Your task to perform on an android device: Empty the shopping cart on walmart.com. Search for "bose quietcomfort 35" on walmart.com, select the first entry, add it to the cart, then select checkout. Image 0: 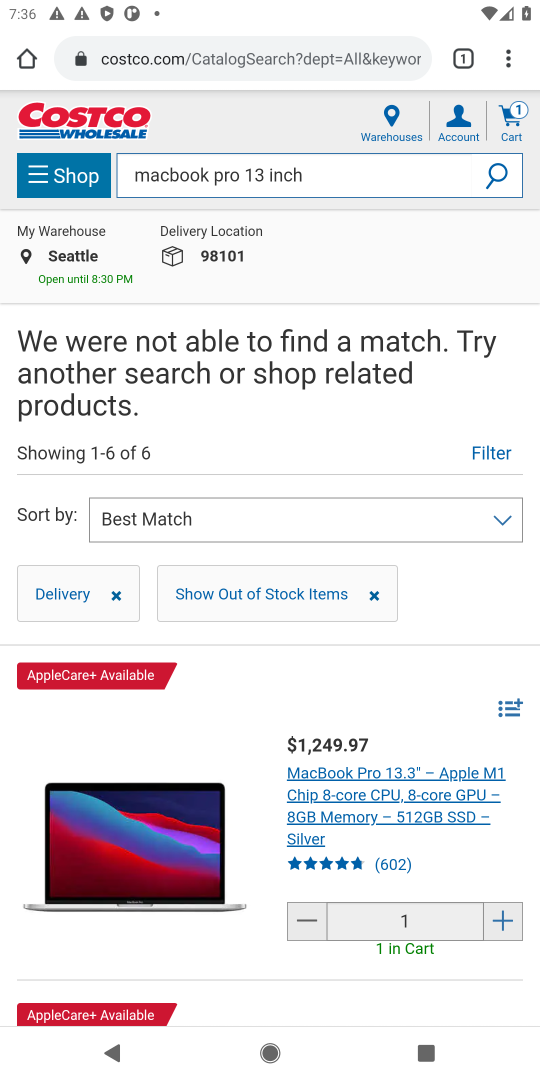
Step 0: press home button
Your task to perform on an android device: Empty the shopping cart on walmart.com. Search for "bose quietcomfort 35" on walmart.com, select the first entry, add it to the cart, then select checkout. Image 1: 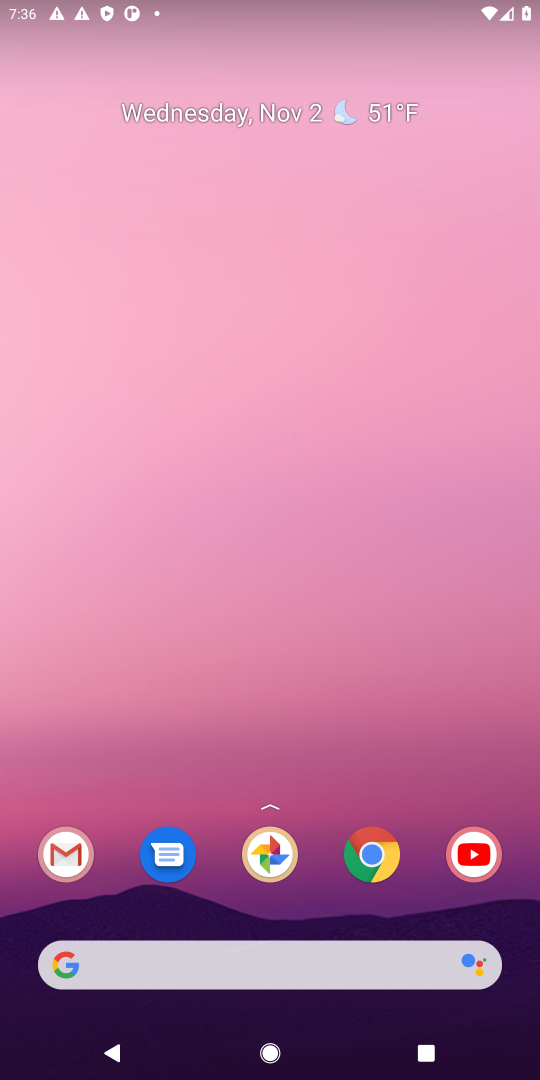
Step 1: click (373, 850)
Your task to perform on an android device: Empty the shopping cart on walmart.com. Search for "bose quietcomfort 35" on walmart.com, select the first entry, add it to the cart, then select checkout. Image 2: 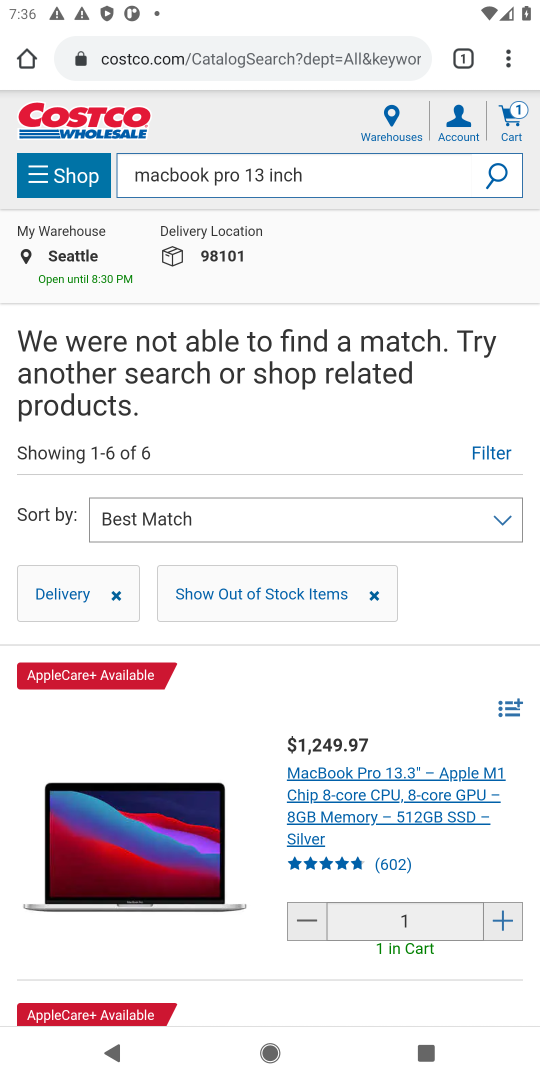
Step 2: click (464, 66)
Your task to perform on an android device: Empty the shopping cart on walmart.com. Search for "bose quietcomfort 35" on walmart.com, select the first entry, add it to the cart, then select checkout. Image 3: 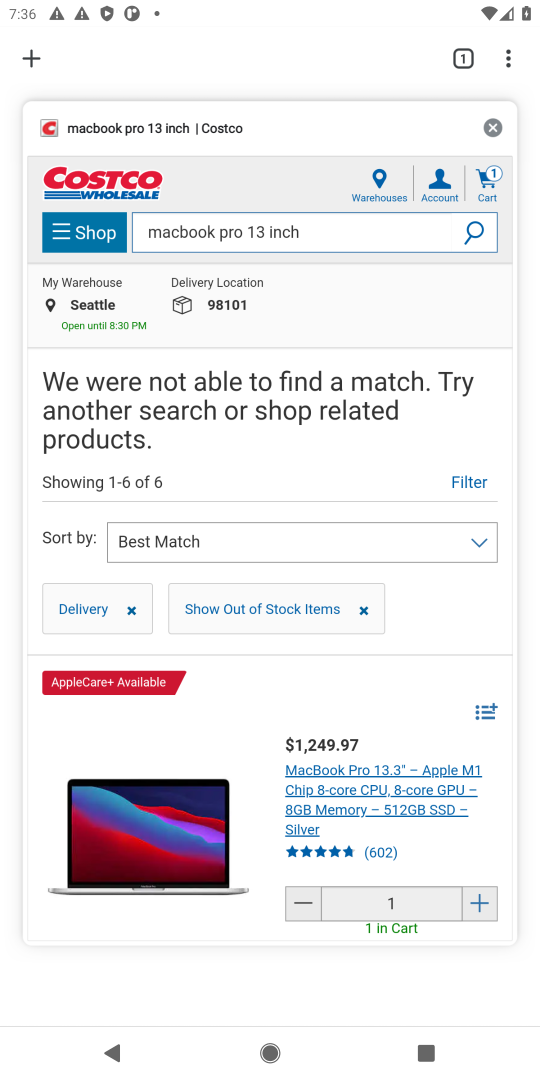
Step 3: click (32, 59)
Your task to perform on an android device: Empty the shopping cart on walmart.com. Search for "bose quietcomfort 35" on walmart.com, select the first entry, add it to the cart, then select checkout. Image 4: 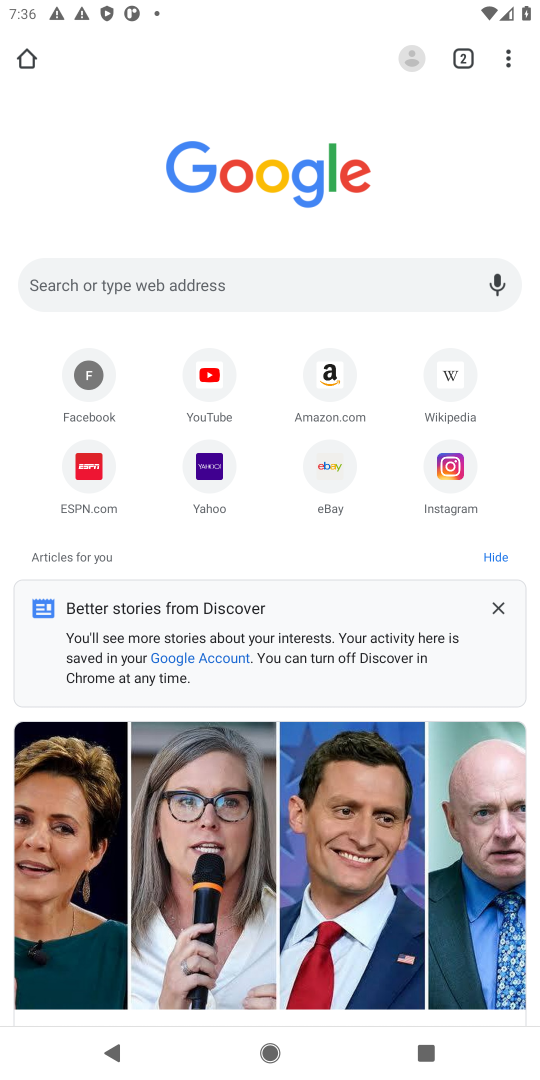
Step 4: click (252, 286)
Your task to perform on an android device: Empty the shopping cart on walmart.com. Search for "bose quietcomfort 35" on walmart.com, select the first entry, add it to the cart, then select checkout. Image 5: 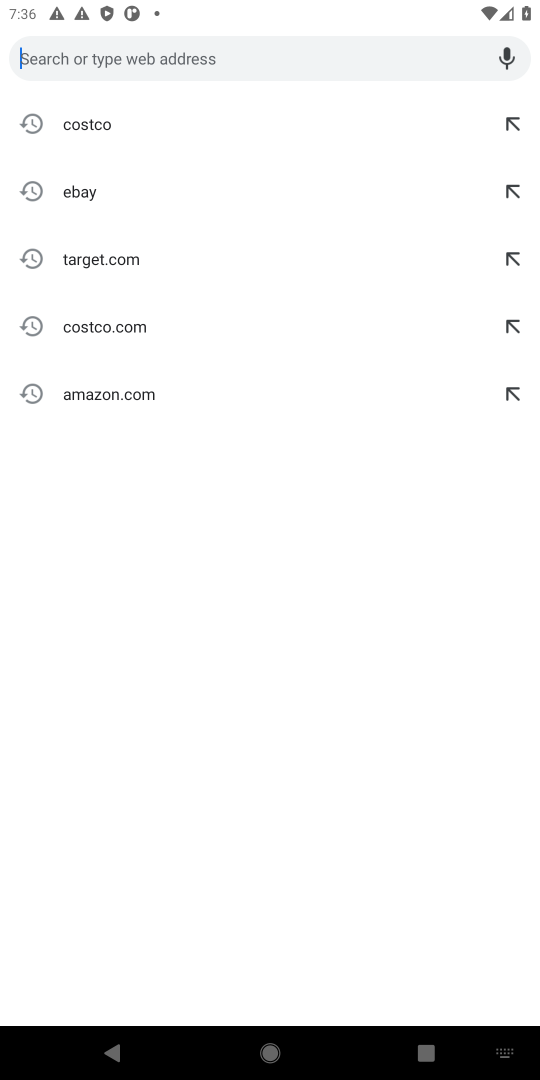
Step 5: type "walmart"
Your task to perform on an android device: Empty the shopping cart on walmart.com. Search for "bose quietcomfort 35" on walmart.com, select the first entry, add it to the cart, then select checkout. Image 6: 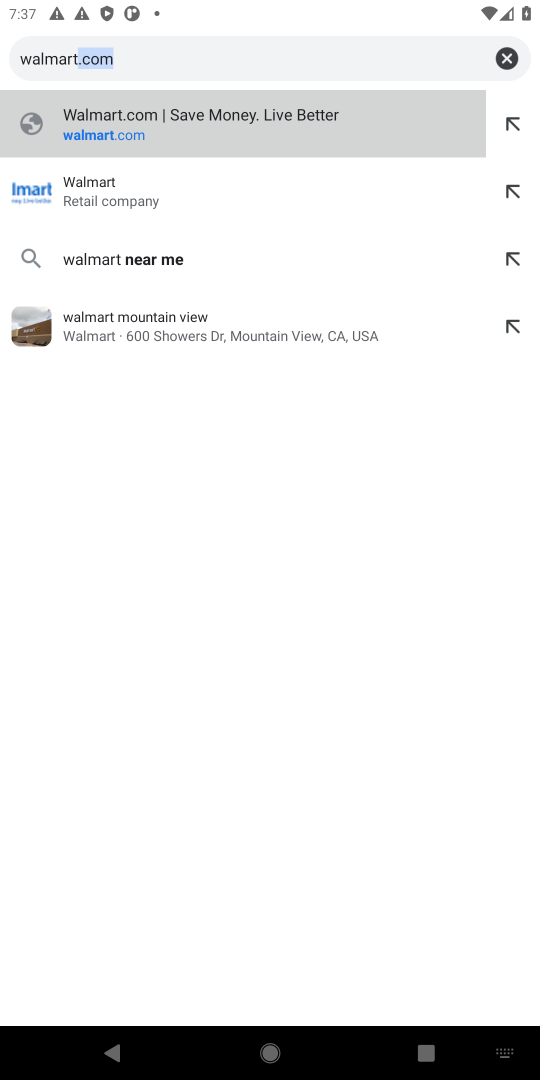
Step 6: click (126, 125)
Your task to perform on an android device: Empty the shopping cart on walmart.com. Search for "bose quietcomfort 35" on walmart.com, select the first entry, add it to the cart, then select checkout. Image 7: 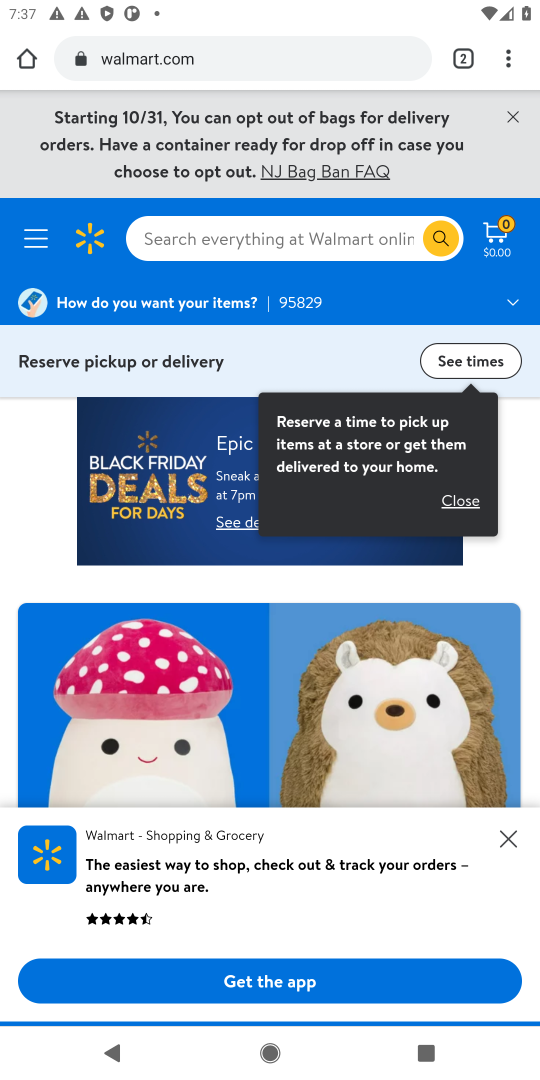
Step 7: click (516, 118)
Your task to perform on an android device: Empty the shopping cart on walmart.com. Search for "bose quietcomfort 35" on walmart.com, select the first entry, add it to the cart, then select checkout. Image 8: 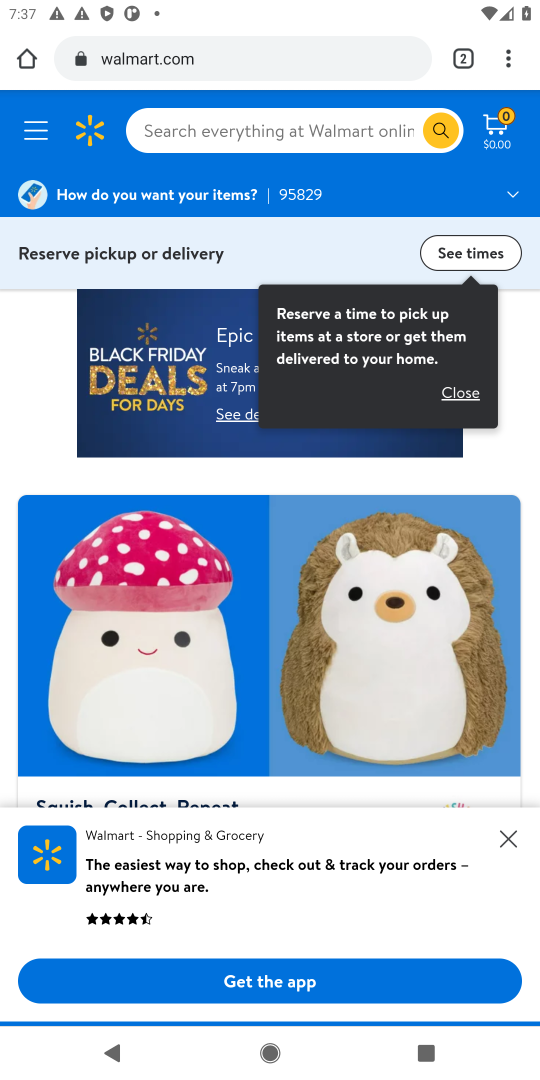
Step 8: click (279, 130)
Your task to perform on an android device: Empty the shopping cart on walmart.com. Search for "bose quietcomfort 35" on walmart.com, select the first entry, add it to the cart, then select checkout. Image 9: 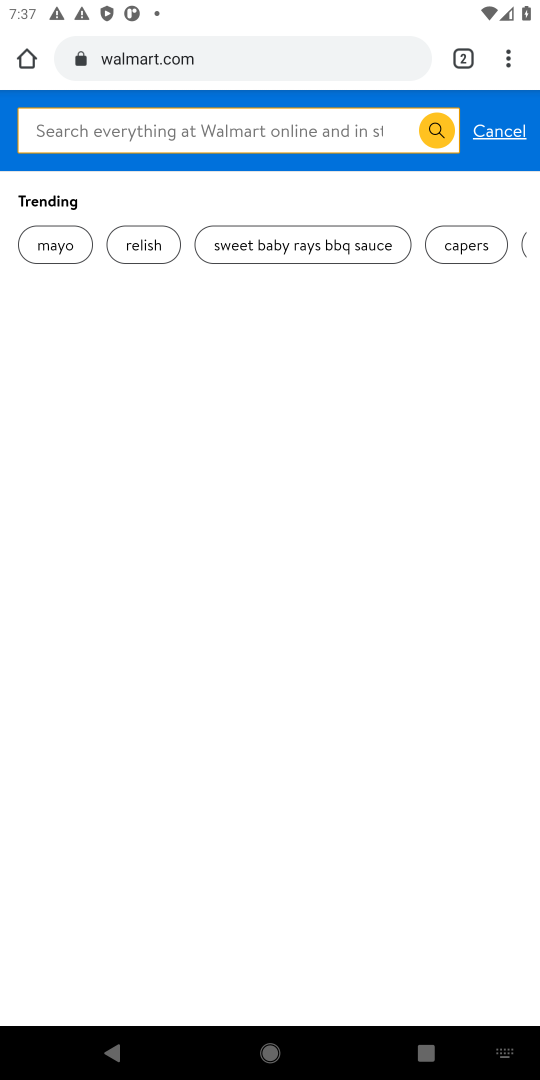
Step 9: type "bose quietcomfort 35"
Your task to perform on an android device: Empty the shopping cart on walmart.com. Search for "bose quietcomfort 35" on walmart.com, select the first entry, add it to the cart, then select checkout. Image 10: 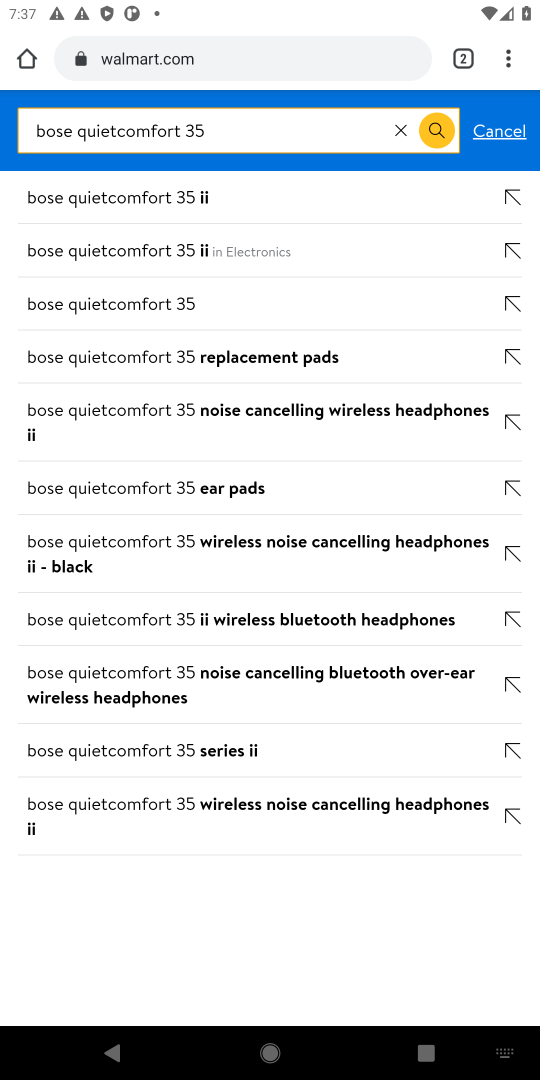
Step 10: click (231, 260)
Your task to perform on an android device: Empty the shopping cart on walmart.com. Search for "bose quietcomfort 35" on walmart.com, select the first entry, add it to the cart, then select checkout. Image 11: 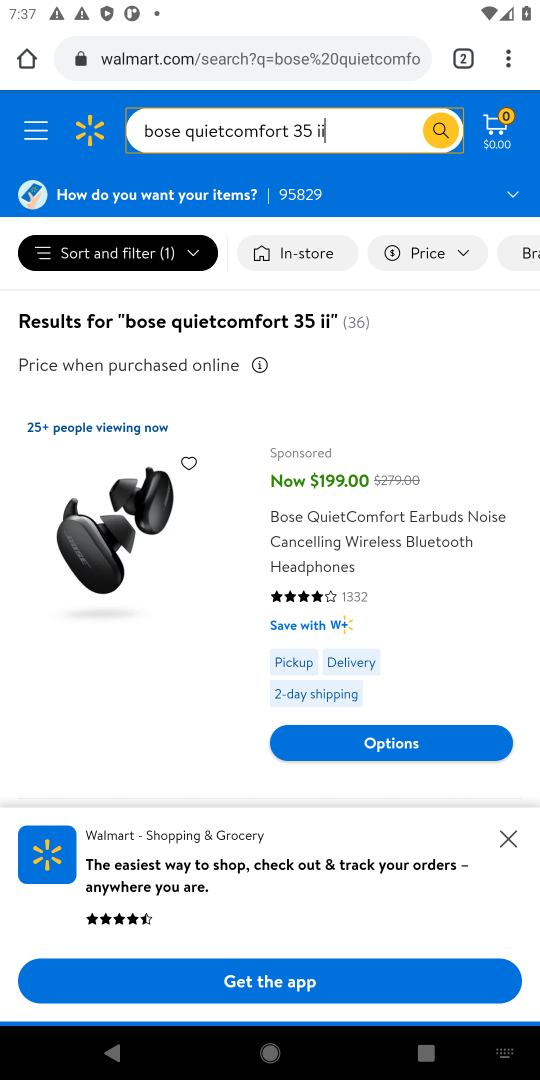
Step 11: click (360, 590)
Your task to perform on an android device: Empty the shopping cart on walmart.com. Search for "bose quietcomfort 35" on walmart.com, select the first entry, add it to the cart, then select checkout. Image 12: 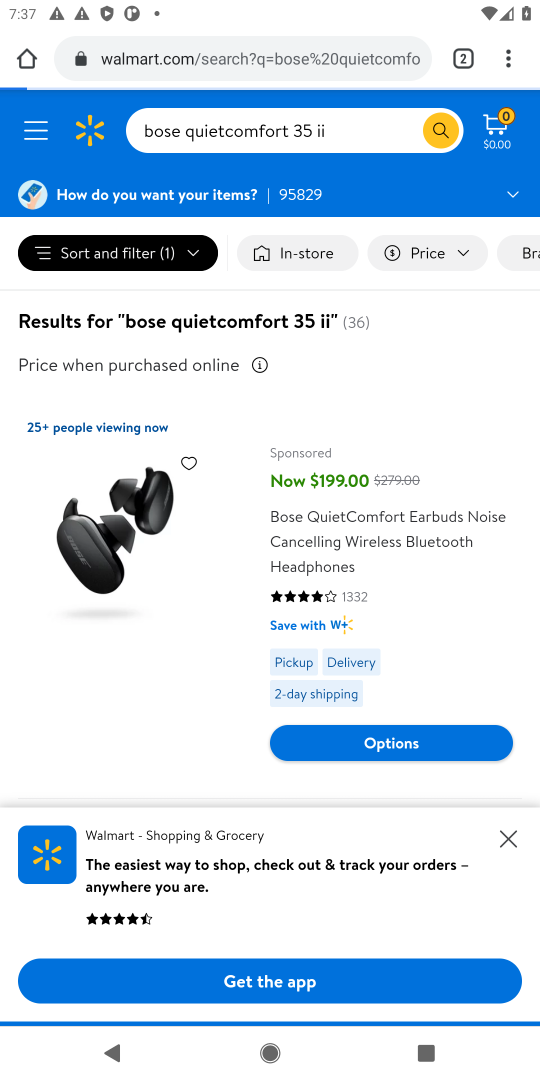
Step 12: click (502, 839)
Your task to perform on an android device: Empty the shopping cart on walmart.com. Search for "bose quietcomfort 35" on walmart.com, select the first entry, add it to the cart, then select checkout. Image 13: 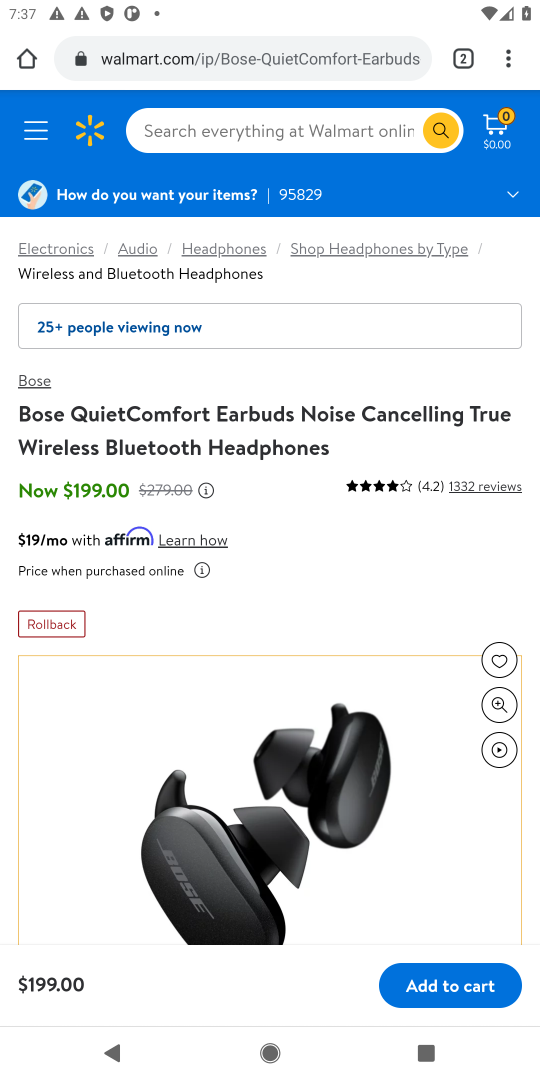
Step 13: click (446, 973)
Your task to perform on an android device: Empty the shopping cart on walmart.com. Search for "bose quietcomfort 35" on walmart.com, select the first entry, add it to the cart, then select checkout. Image 14: 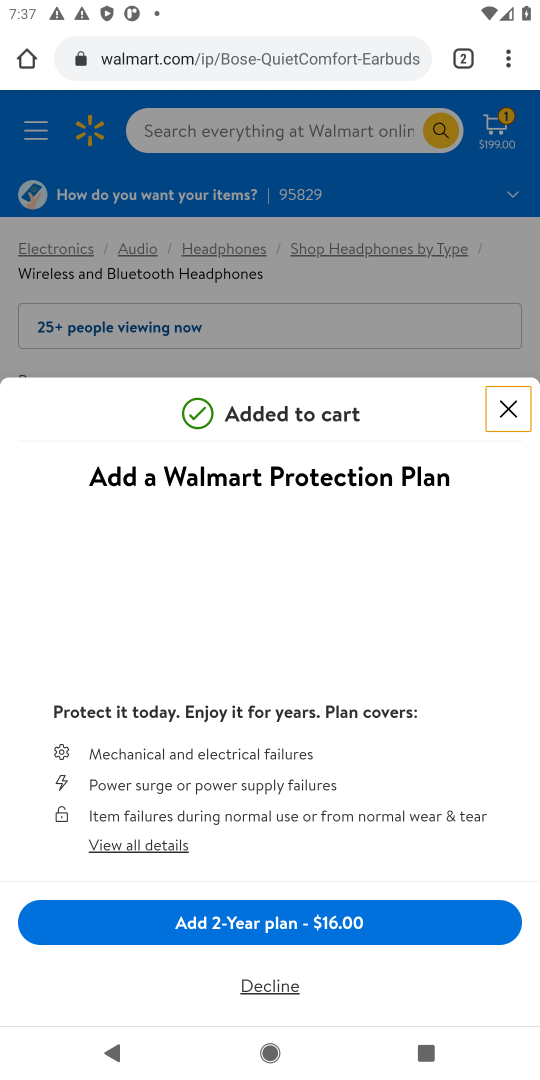
Step 14: task complete